Your task to perform on an android device: Go to Reddit.com Image 0: 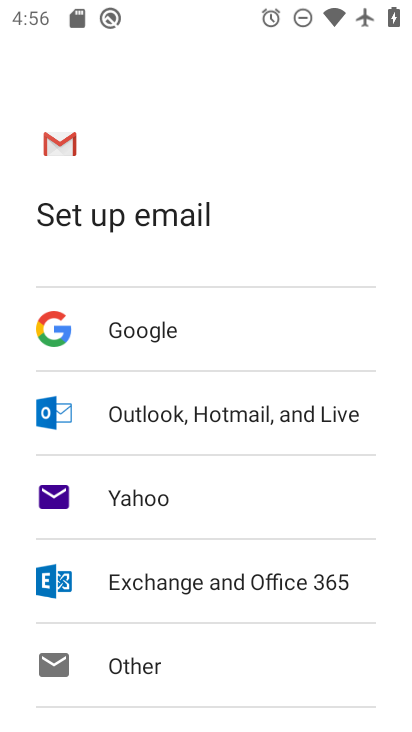
Step 0: press home button
Your task to perform on an android device: Go to Reddit.com Image 1: 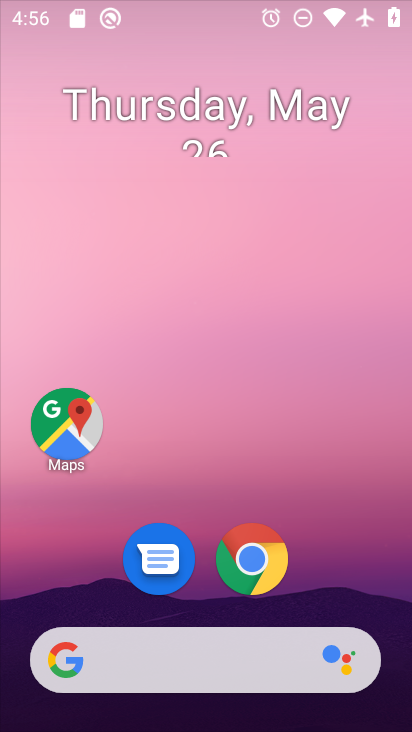
Step 1: click (256, 534)
Your task to perform on an android device: Go to Reddit.com Image 2: 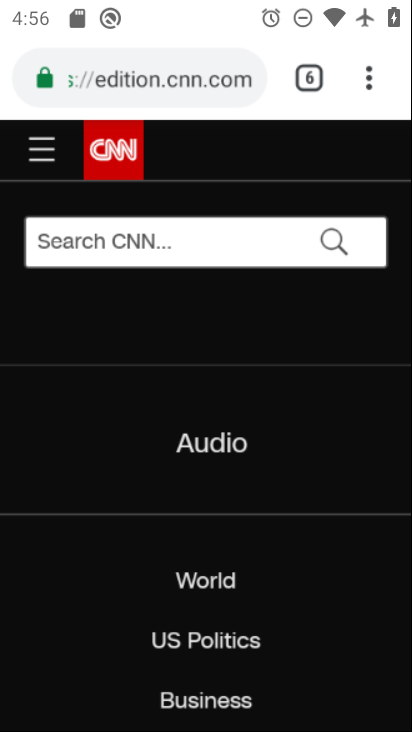
Step 2: click (304, 75)
Your task to perform on an android device: Go to Reddit.com Image 3: 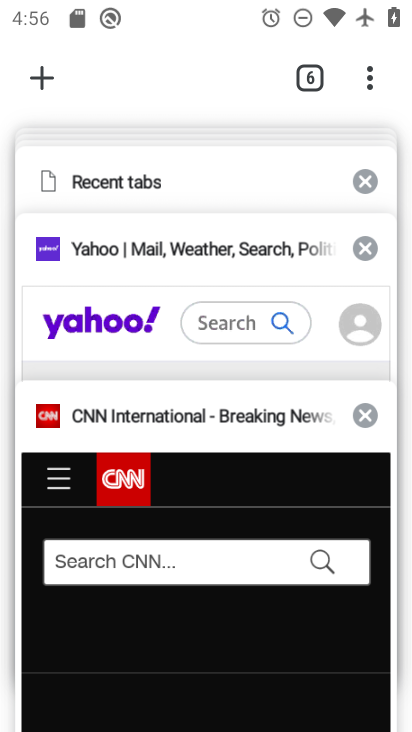
Step 3: drag from (135, 195) to (131, 655)
Your task to perform on an android device: Go to Reddit.com Image 4: 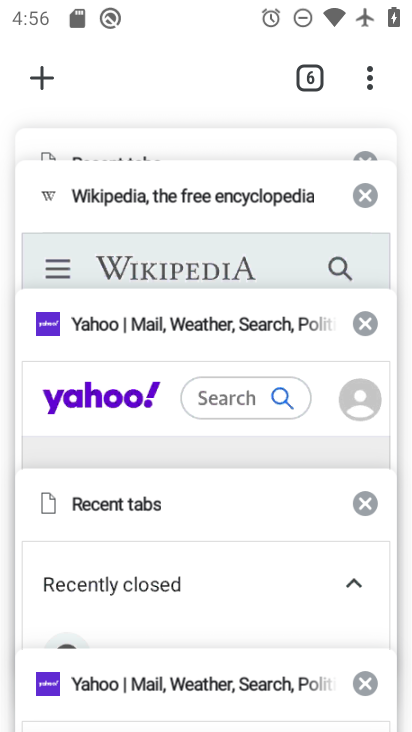
Step 4: drag from (111, 182) to (99, 536)
Your task to perform on an android device: Go to Reddit.com Image 5: 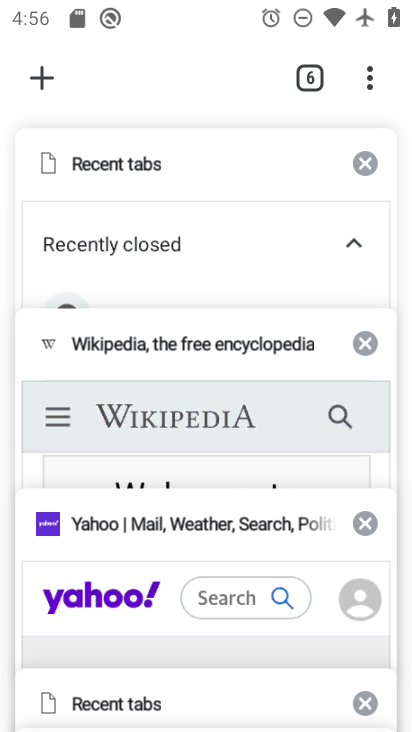
Step 5: click (40, 93)
Your task to perform on an android device: Go to Reddit.com Image 6: 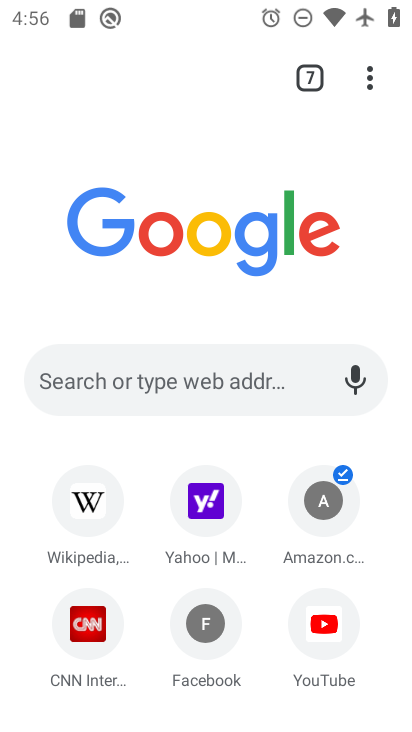
Step 6: click (145, 397)
Your task to perform on an android device: Go to Reddit.com Image 7: 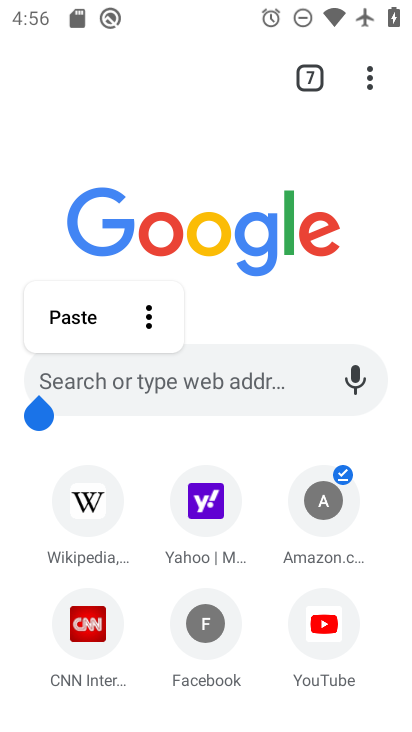
Step 7: click (177, 372)
Your task to perform on an android device: Go to Reddit.com Image 8: 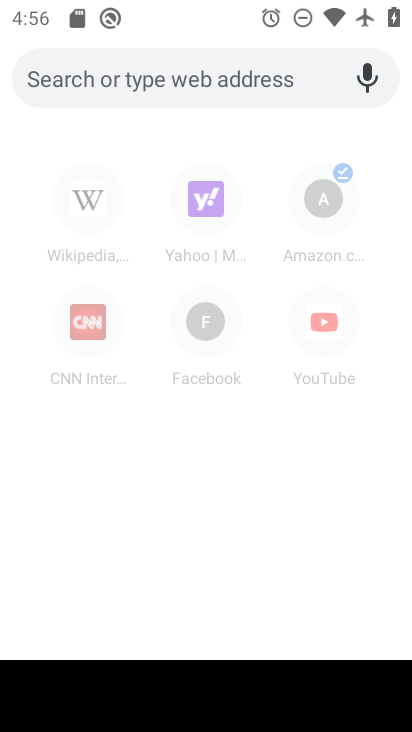
Step 8: click (231, 65)
Your task to perform on an android device: Go to Reddit.com Image 9: 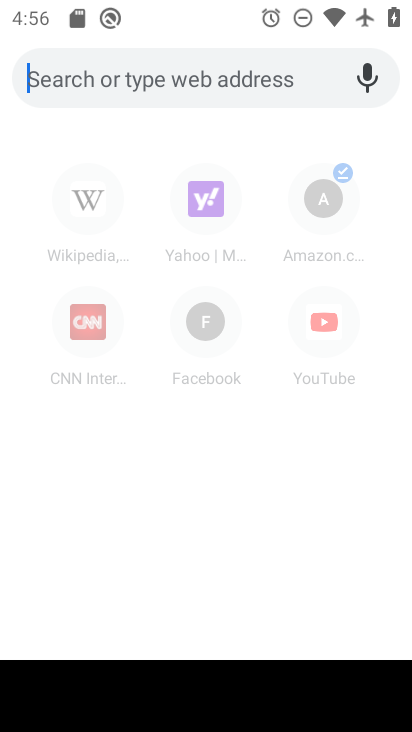
Step 9: type "Reddit.com"
Your task to perform on an android device: Go to Reddit.com Image 10: 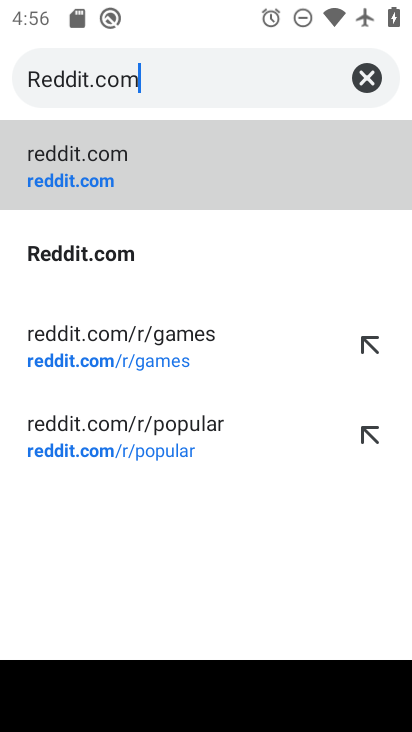
Step 10: click (203, 186)
Your task to perform on an android device: Go to Reddit.com Image 11: 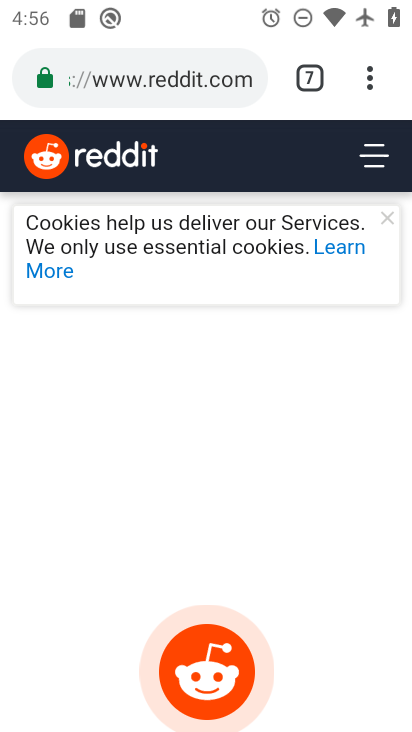
Step 11: task complete